Your task to perform on an android device: Open network settings Image 0: 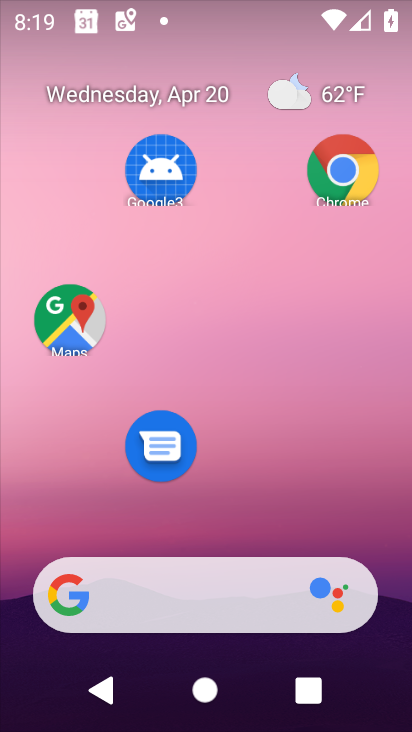
Step 0: drag from (268, 490) to (268, 149)
Your task to perform on an android device: Open network settings Image 1: 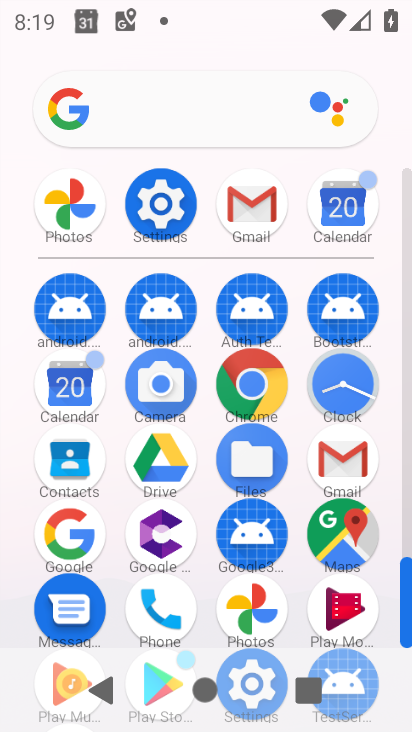
Step 1: click (161, 200)
Your task to perform on an android device: Open network settings Image 2: 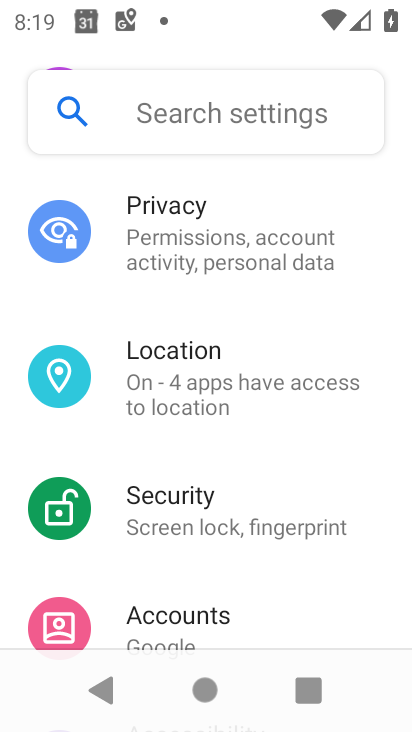
Step 2: drag from (258, 196) to (180, 706)
Your task to perform on an android device: Open network settings Image 3: 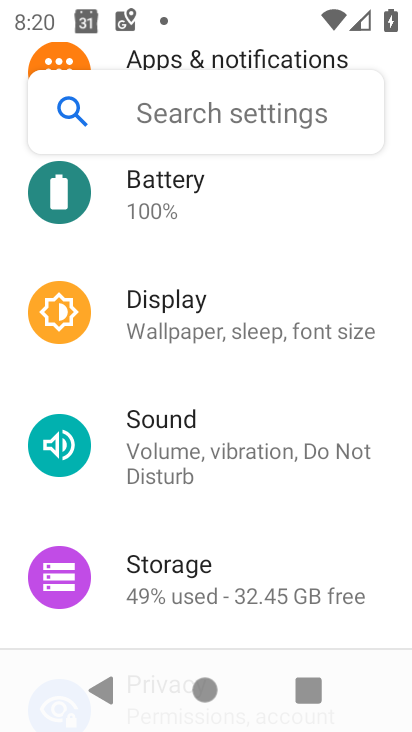
Step 3: drag from (242, 256) to (254, 698)
Your task to perform on an android device: Open network settings Image 4: 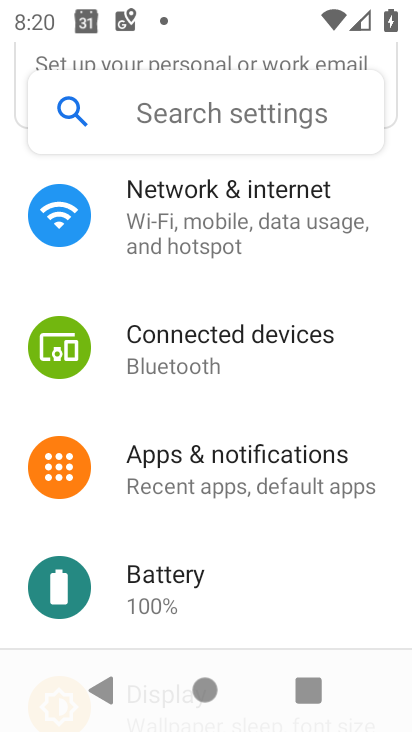
Step 4: click (204, 193)
Your task to perform on an android device: Open network settings Image 5: 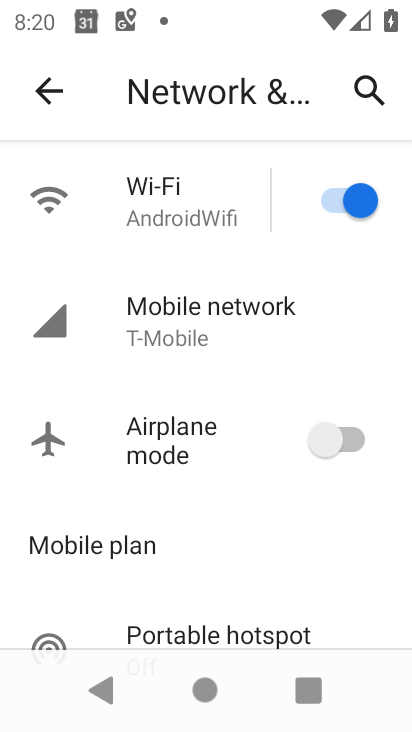
Step 5: click (229, 300)
Your task to perform on an android device: Open network settings Image 6: 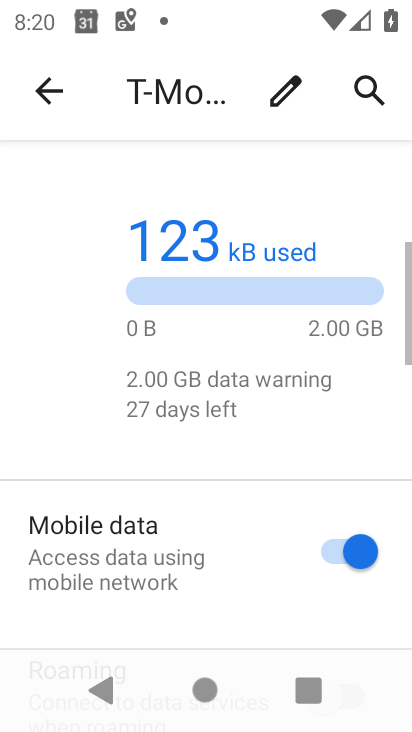
Step 6: task complete